Your task to perform on an android device: Open sound settings Image 0: 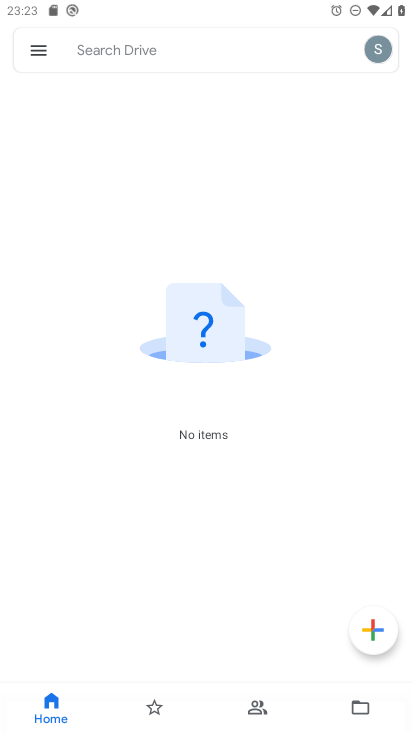
Step 0: press home button
Your task to perform on an android device: Open sound settings Image 1: 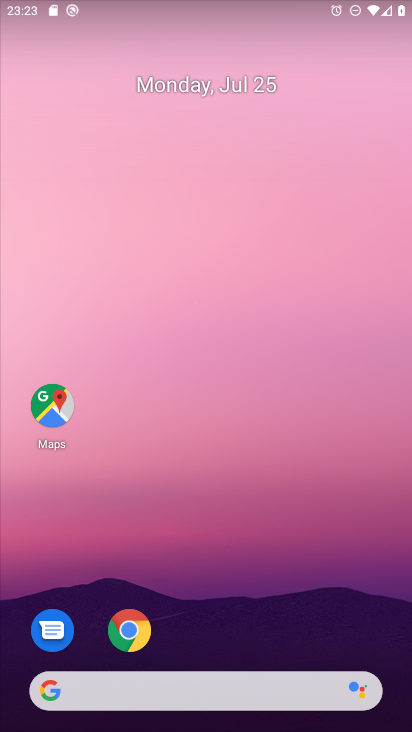
Step 1: drag from (313, 600) to (258, 78)
Your task to perform on an android device: Open sound settings Image 2: 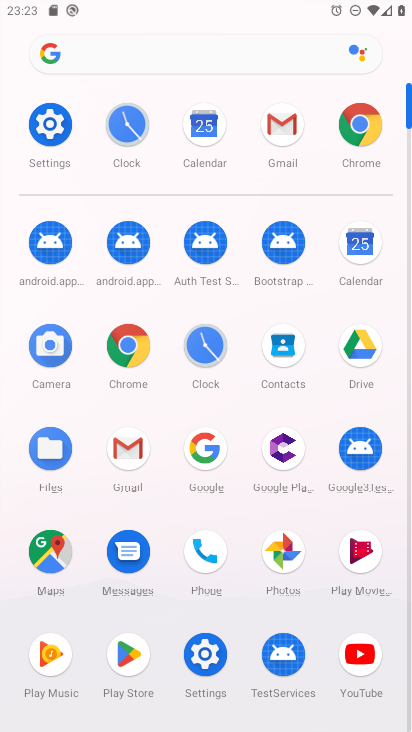
Step 2: click (59, 121)
Your task to perform on an android device: Open sound settings Image 3: 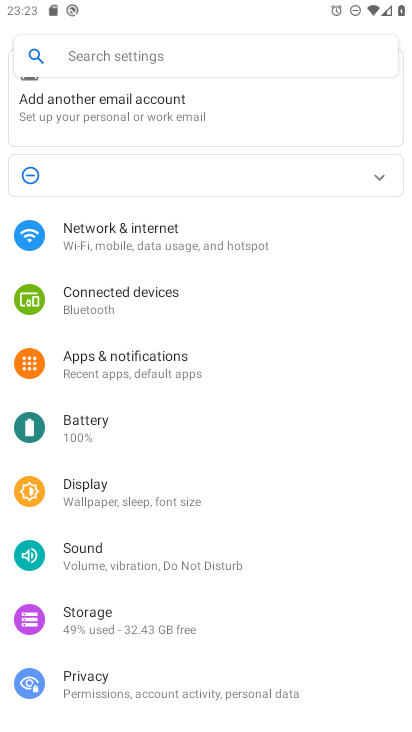
Step 3: click (122, 557)
Your task to perform on an android device: Open sound settings Image 4: 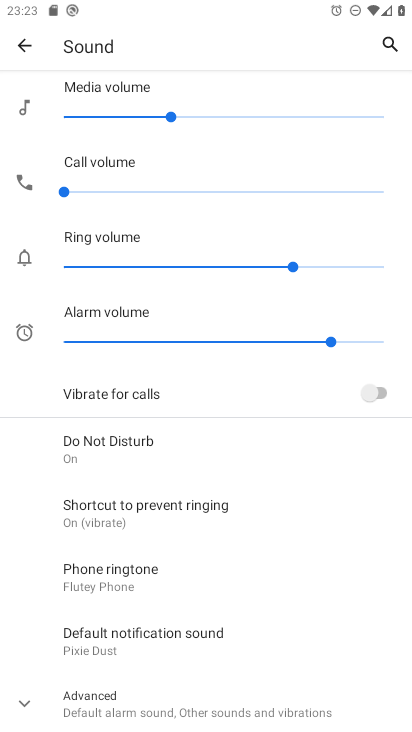
Step 4: task complete